Your task to perform on an android device: change notifications settings Image 0: 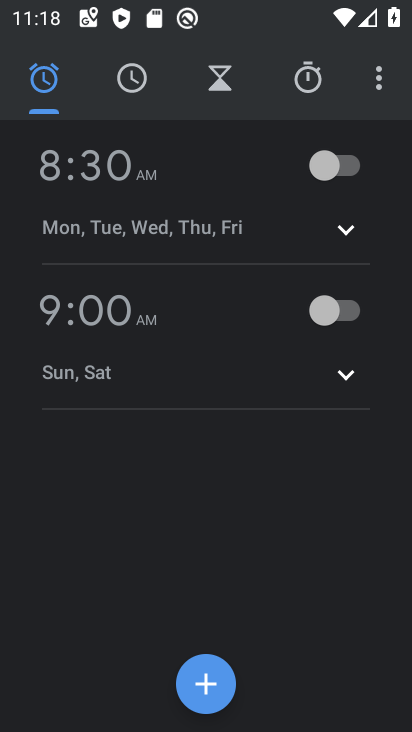
Step 0: press home button
Your task to perform on an android device: change notifications settings Image 1: 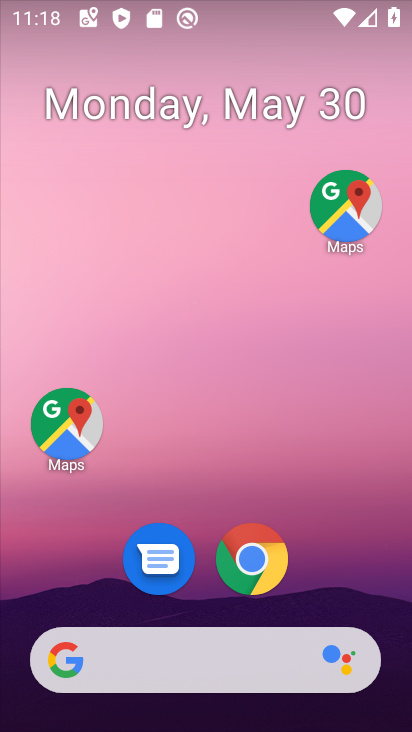
Step 1: drag from (322, 479) to (287, 114)
Your task to perform on an android device: change notifications settings Image 2: 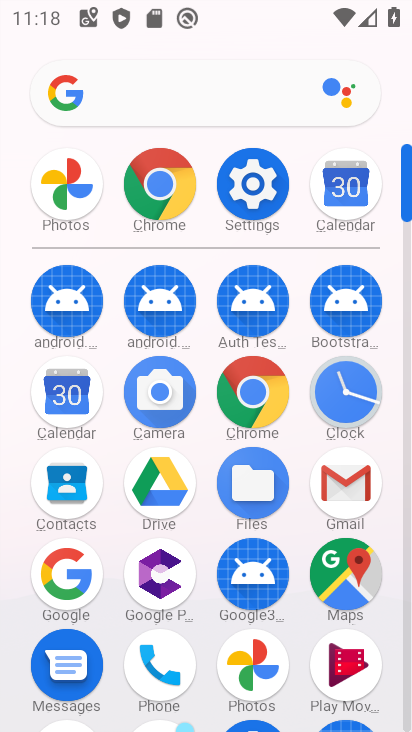
Step 2: click (255, 175)
Your task to perform on an android device: change notifications settings Image 3: 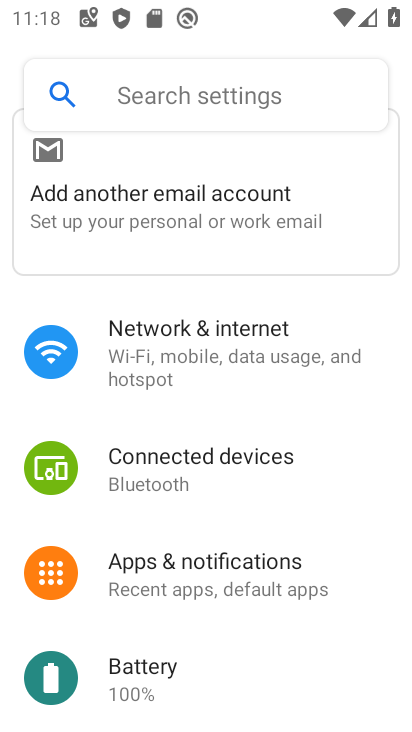
Step 3: click (248, 585)
Your task to perform on an android device: change notifications settings Image 4: 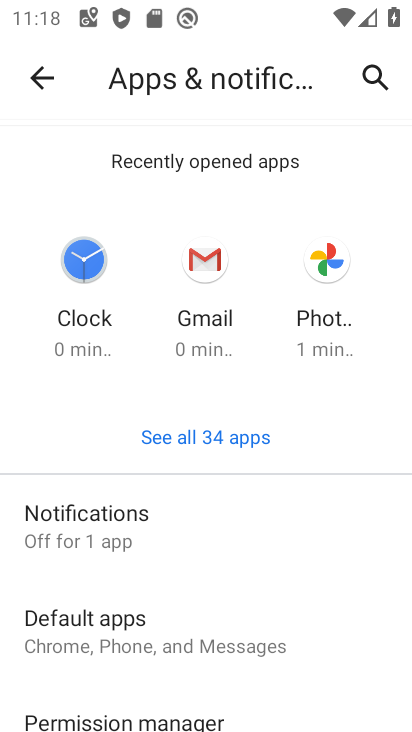
Step 4: click (137, 534)
Your task to perform on an android device: change notifications settings Image 5: 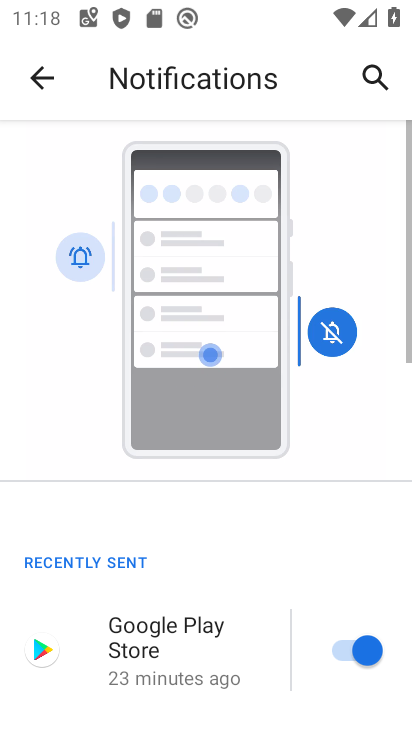
Step 5: drag from (209, 568) to (277, 91)
Your task to perform on an android device: change notifications settings Image 6: 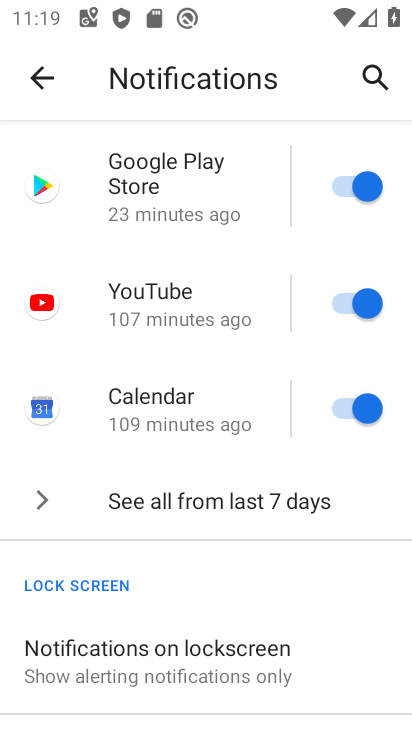
Step 6: drag from (253, 604) to (316, 147)
Your task to perform on an android device: change notifications settings Image 7: 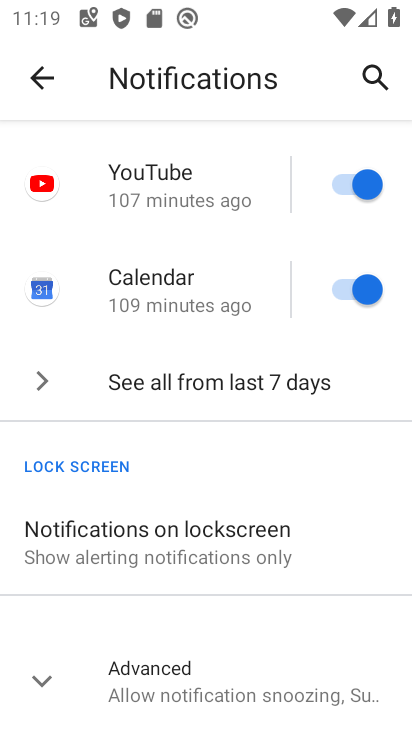
Step 7: click (187, 667)
Your task to perform on an android device: change notifications settings Image 8: 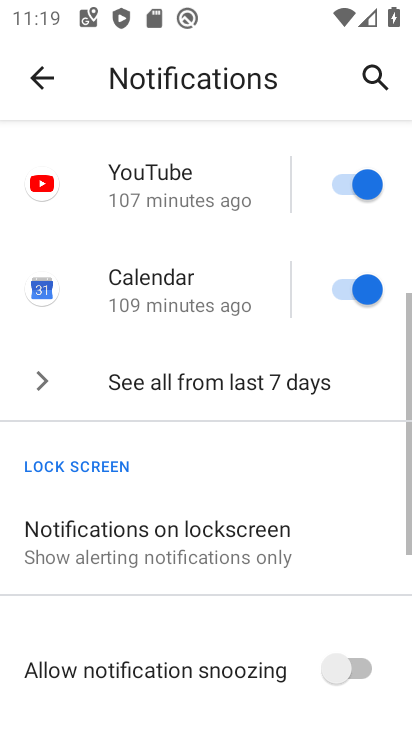
Step 8: drag from (252, 640) to (293, 223)
Your task to perform on an android device: change notifications settings Image 9: 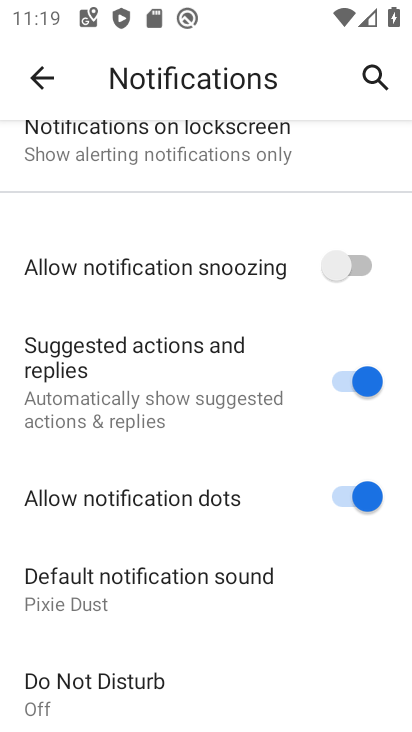
Step 9: click (351, 251)
Your task to perform on an android device: change notifications settings Image 10: 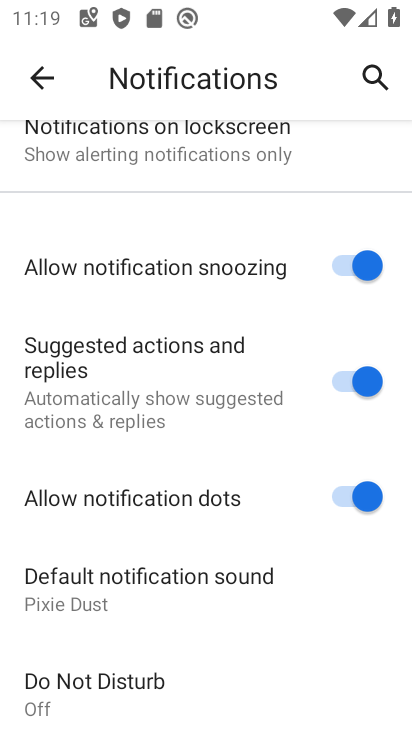
Step 10: task complete